Your task to perform on an android device: see tabs open on other devices in the chrome app Image 0: 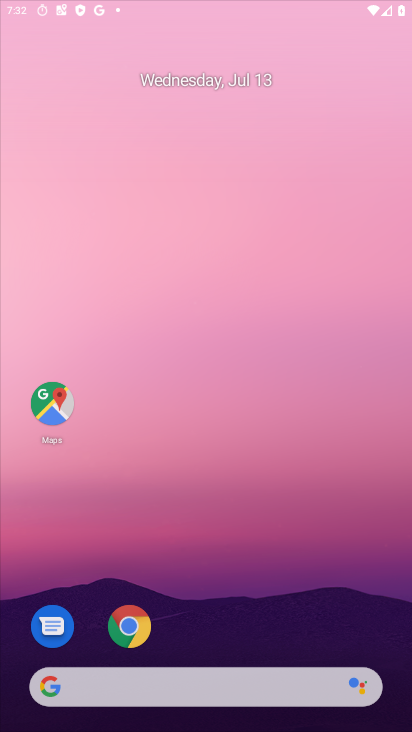
Step 0: drag from (309, 130) to (292, 33)
Your task to perform on an android device: see tabs open on other devices in the chrome app Image 1: 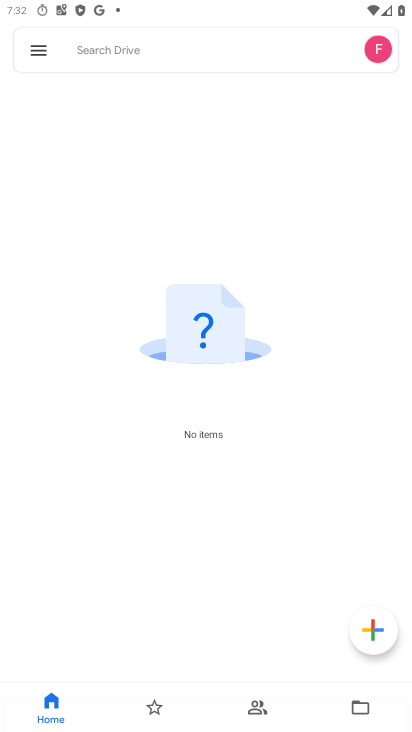
Step 1: press home button
Your task to perform on an android device: see tabs open on other devices in the chrome app Image 2: 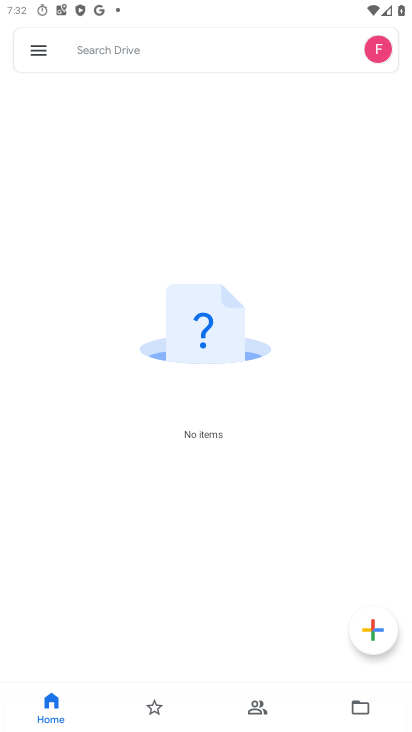
Step 2: drag from (368, 719) to (299, 23)
Your task to perform on an android device: see tabs open on other devices in the chrome app Image 3: 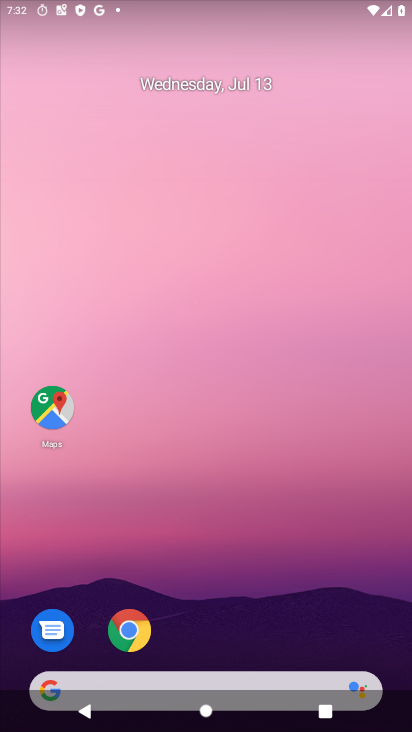
Step 3: drag from (376, 626) to (266, 38)
Your task to perform on an android device: see tabs open on other devices in the chrome app Image 4: 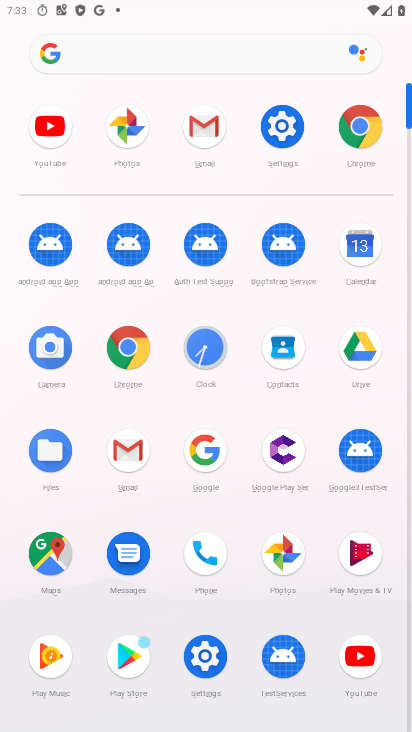
Step 4: click (138, 329)
Your task to perform on an android device: see tabs open on other devices in the chrome app Image 5: 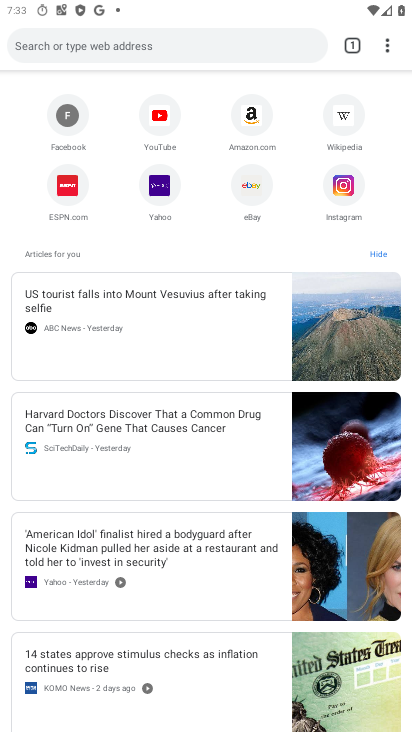
Step 5: task complete